Your task to perform on an android device: Go to Maps Image 0: 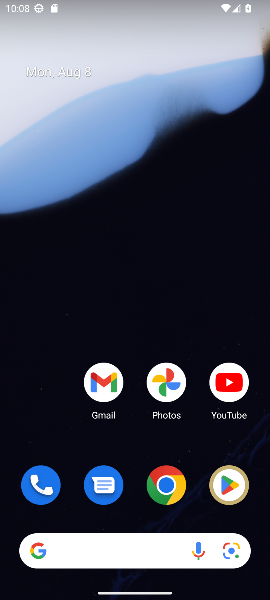
Step 0: drag from (192, 508) to (215, 55)
Your task to perform on an android device: Go to Maps Image 1: 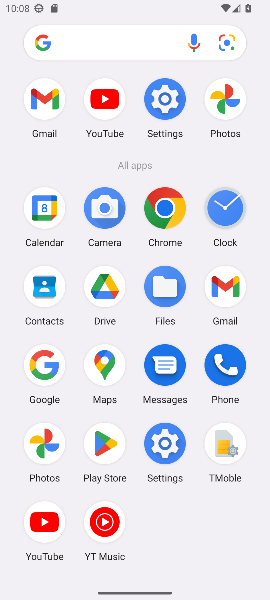
Step 1: click (99, 363)
Your task to perform on an android device: Go to Maps Image 2: 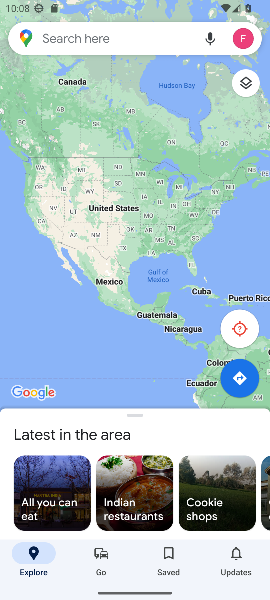
Step 2: task complete